Your task to perform on an android device: Open Google Chrome and open the bookmarks view Image 0: 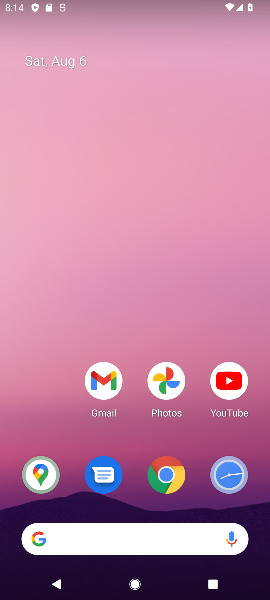
Step 0: click (163, 466)
Your task to perform on an android device: Open Google Chrome and open the bookmarks view Image 1: 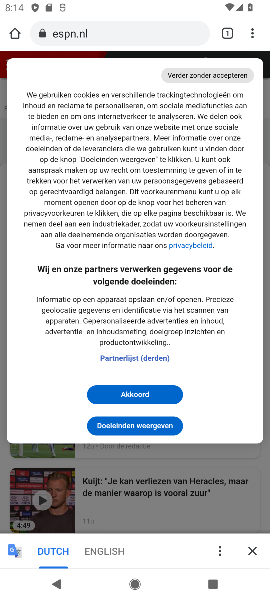
Step 1: click (251, 31)
Your task to perform on an android device: Open Google Chrome and open the bookmarks view Image 2: 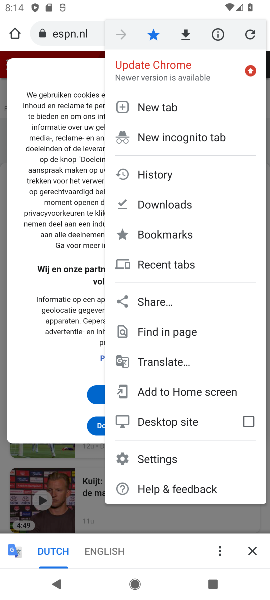
Step 2: click (188, 241)
Your task to perform on an android device: Open Google Chrome and open the bookmarks view Image 3: 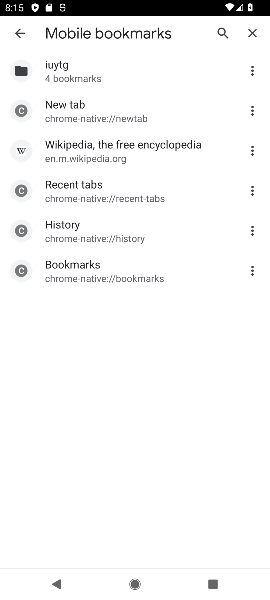
Step 3: task complete